Your task to perform on an android device: Is it going to rain today? Image 0: 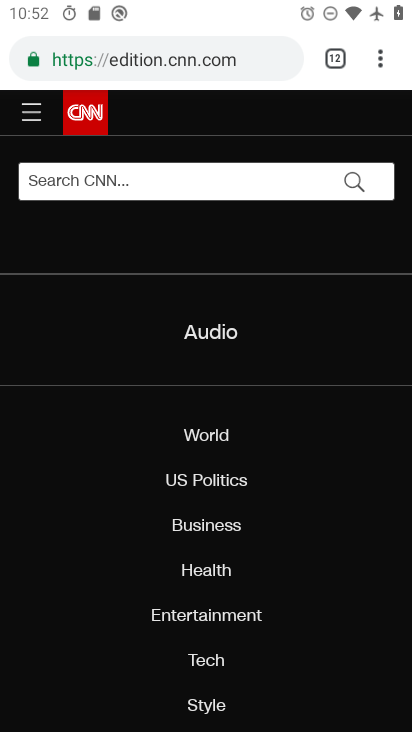
Step 0: press home button
Your task to perform on an android device: Is it going to rain today? Image 1: 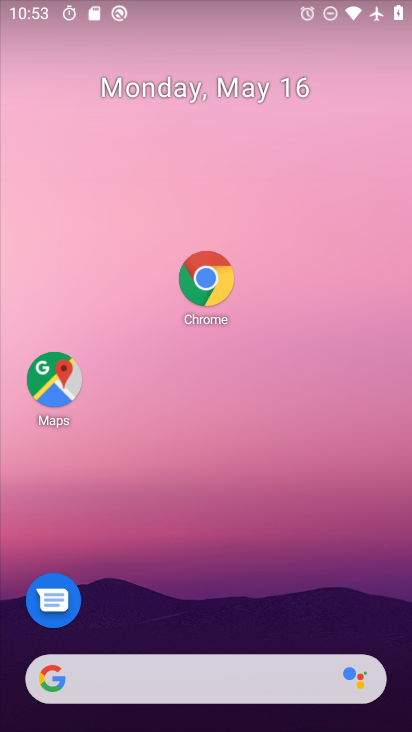
Step 1: click (60, 684)
Your task to perform on an android device: Is it going to rain today? Image 2: 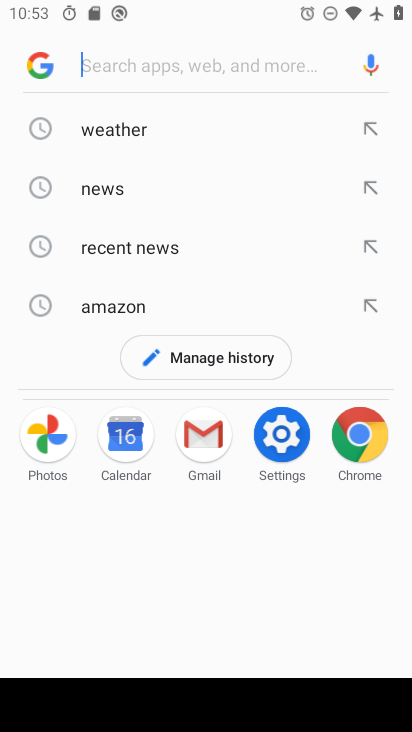
Step 2: click (135, 128)
Your task to perform on an android device: Is it going to rain today? Image 3: 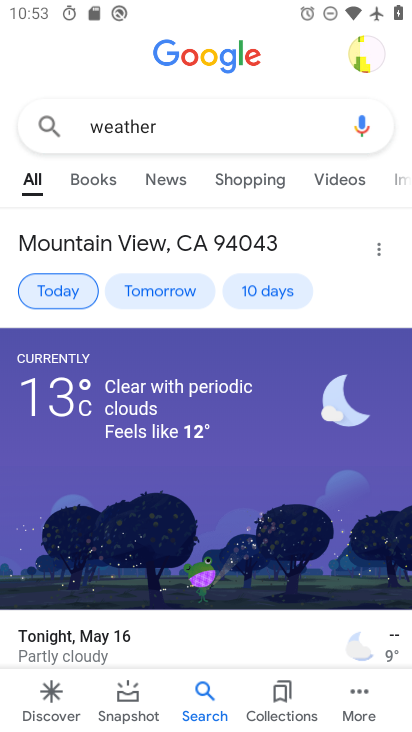
Step 3: task complete